Your task to perform on an android device: turn off priority inbox in the gmail app Image 0: 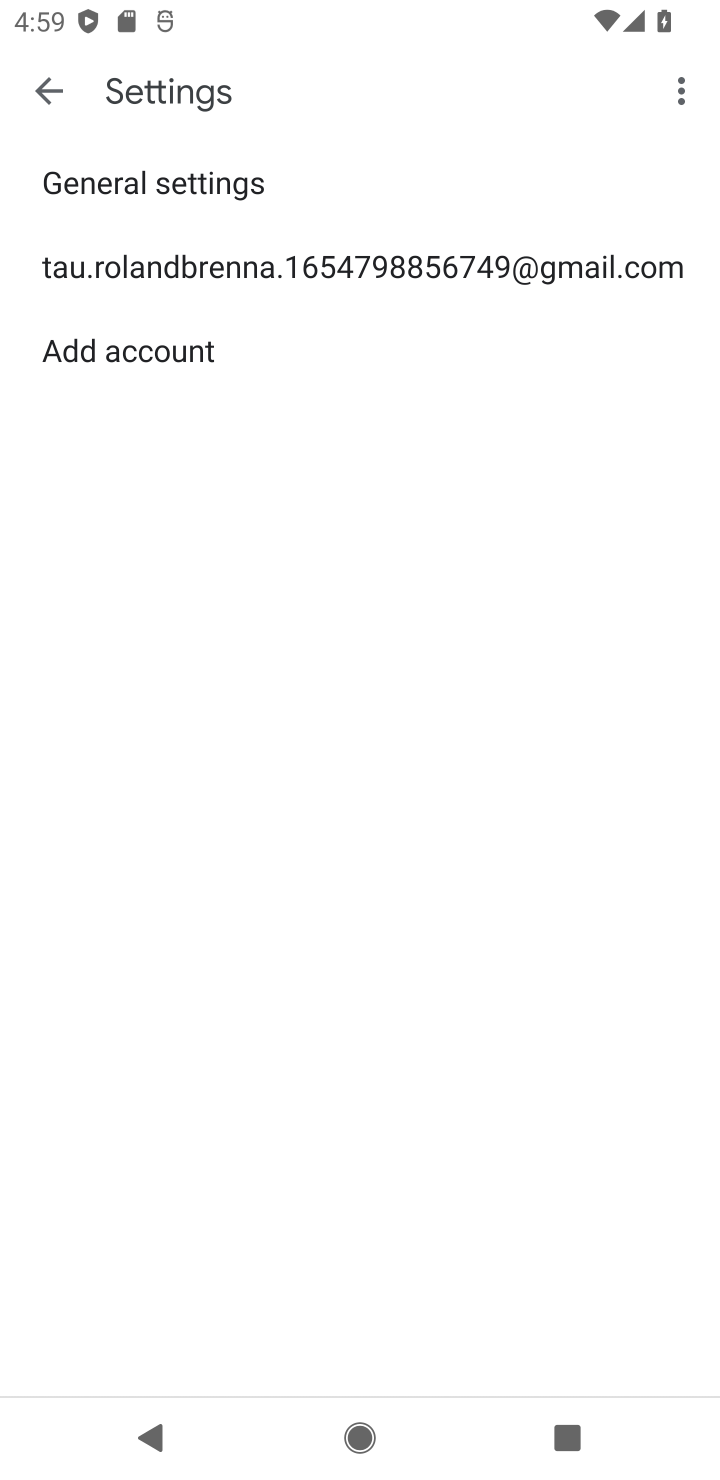
Step 0: press home button
Your task to perform on an android device: turn off priority inbox in the gmail app Image 1: 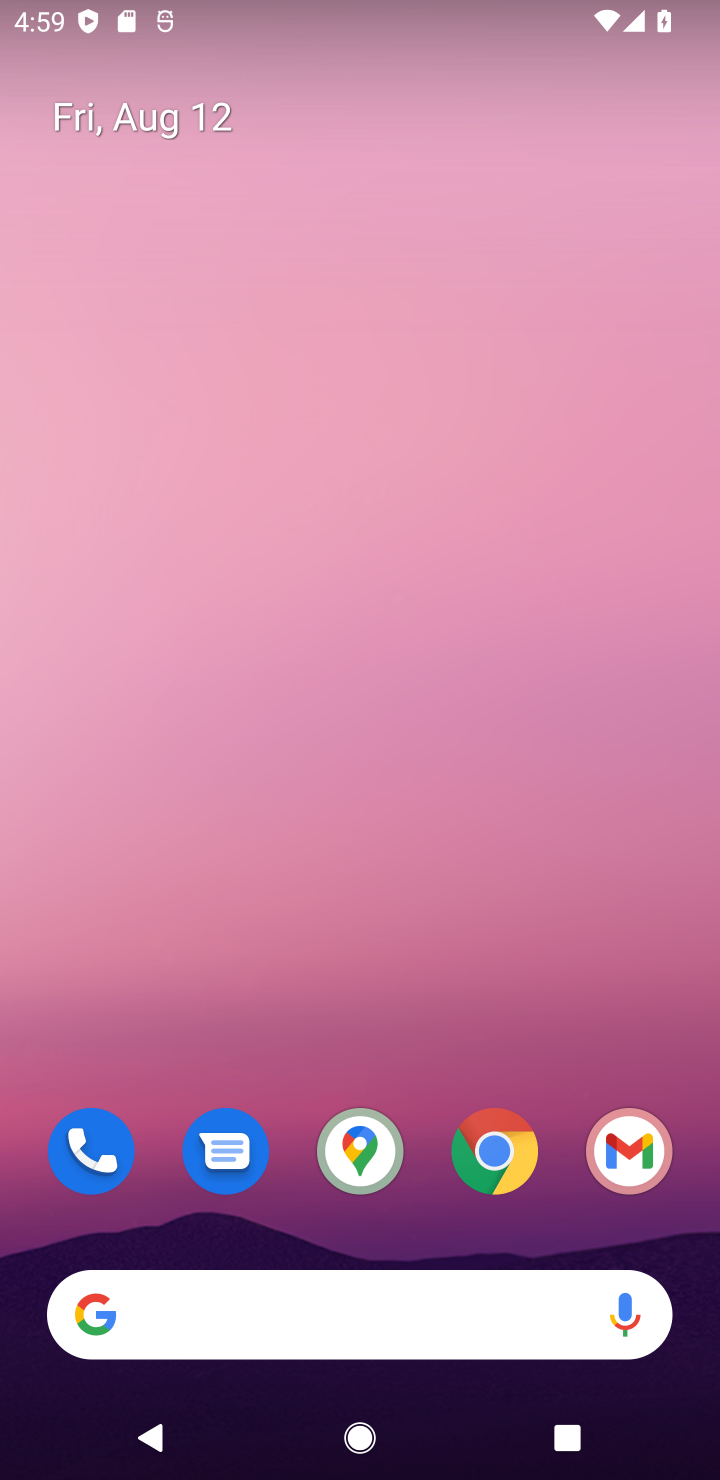
Step 1: drag from (424, 1076) to (673, 1022)
Your task to perform on an android device: turn off priority inbox in the gmail app Image 2: 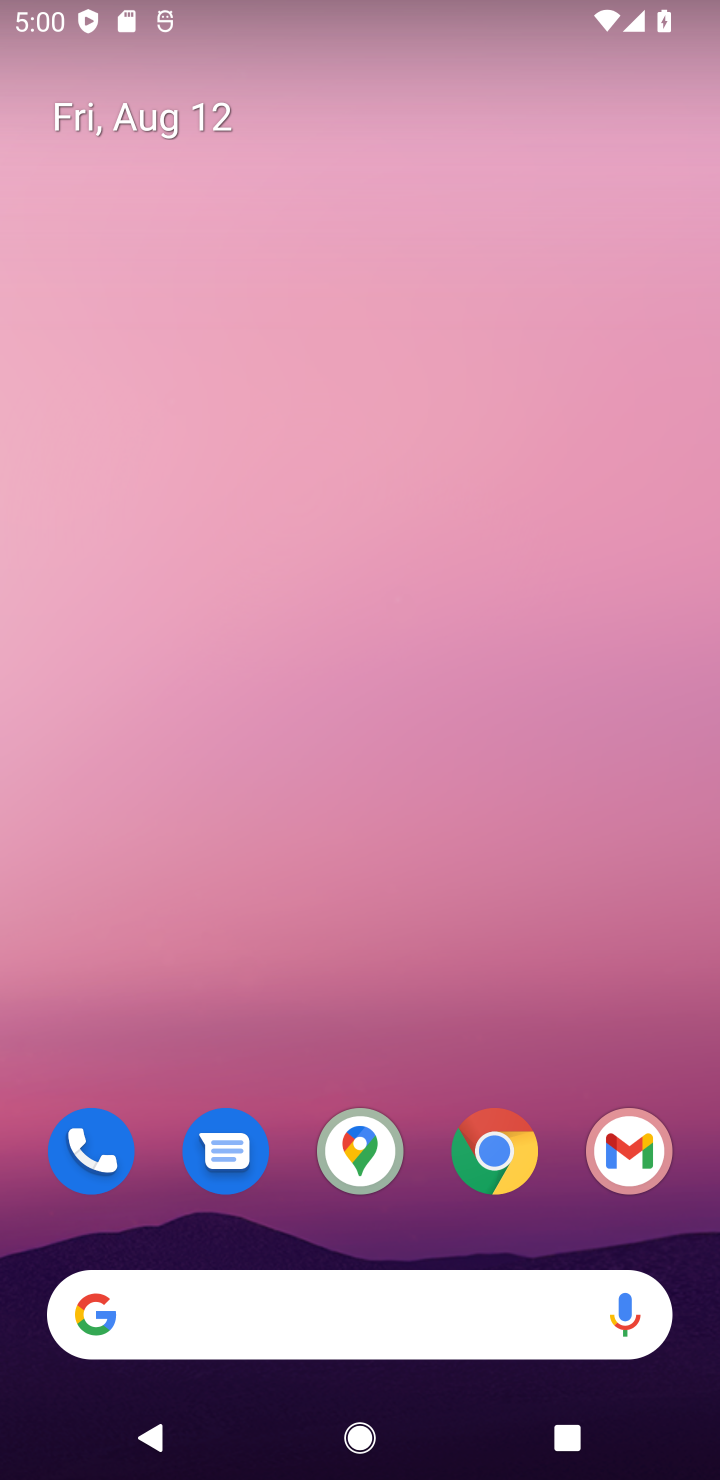
Step 2: drag from (538, 702) to (587, 111)
Your task to perform on an android device: turn off priority inbox in the gmail app Image 3: 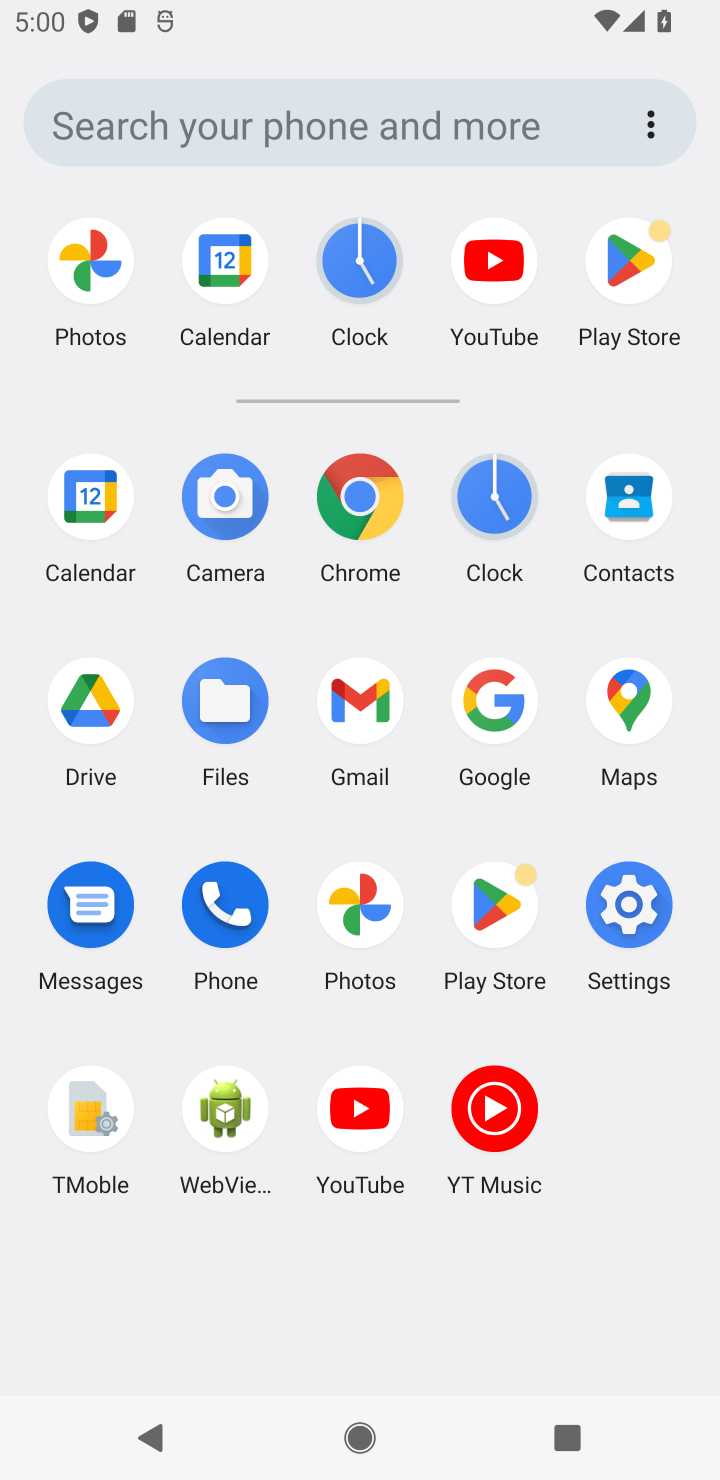
Step 3: click (384, 707)
Your task to perform on an android device: turn off priority inbox in the gmail app Image 4: 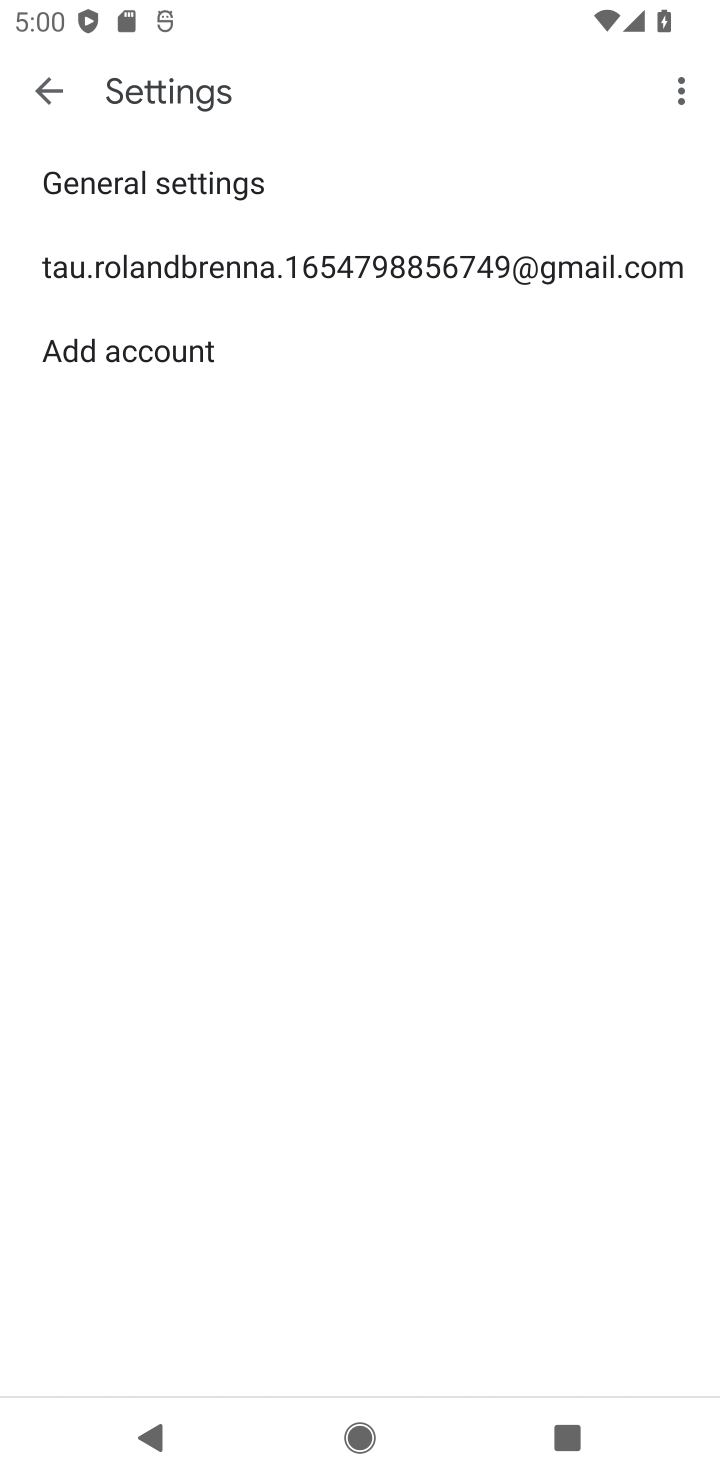
Step 4: click (362, 281)
Your task to perform on an android device: turn off priority inbox in the gmail app Image 5: 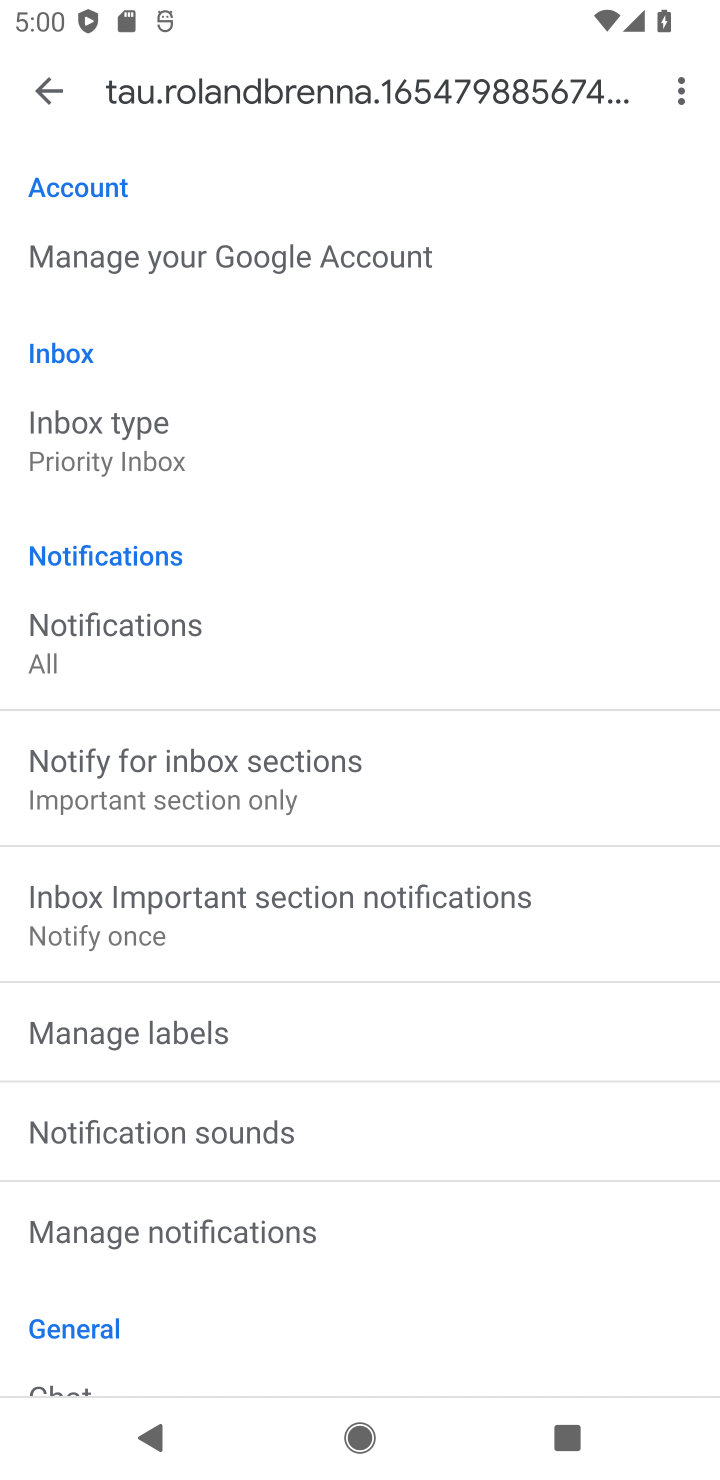
Step 5: click (146, 438)
Your task to perform on an android device: turn off priority inbox in the gmail app Image 6: 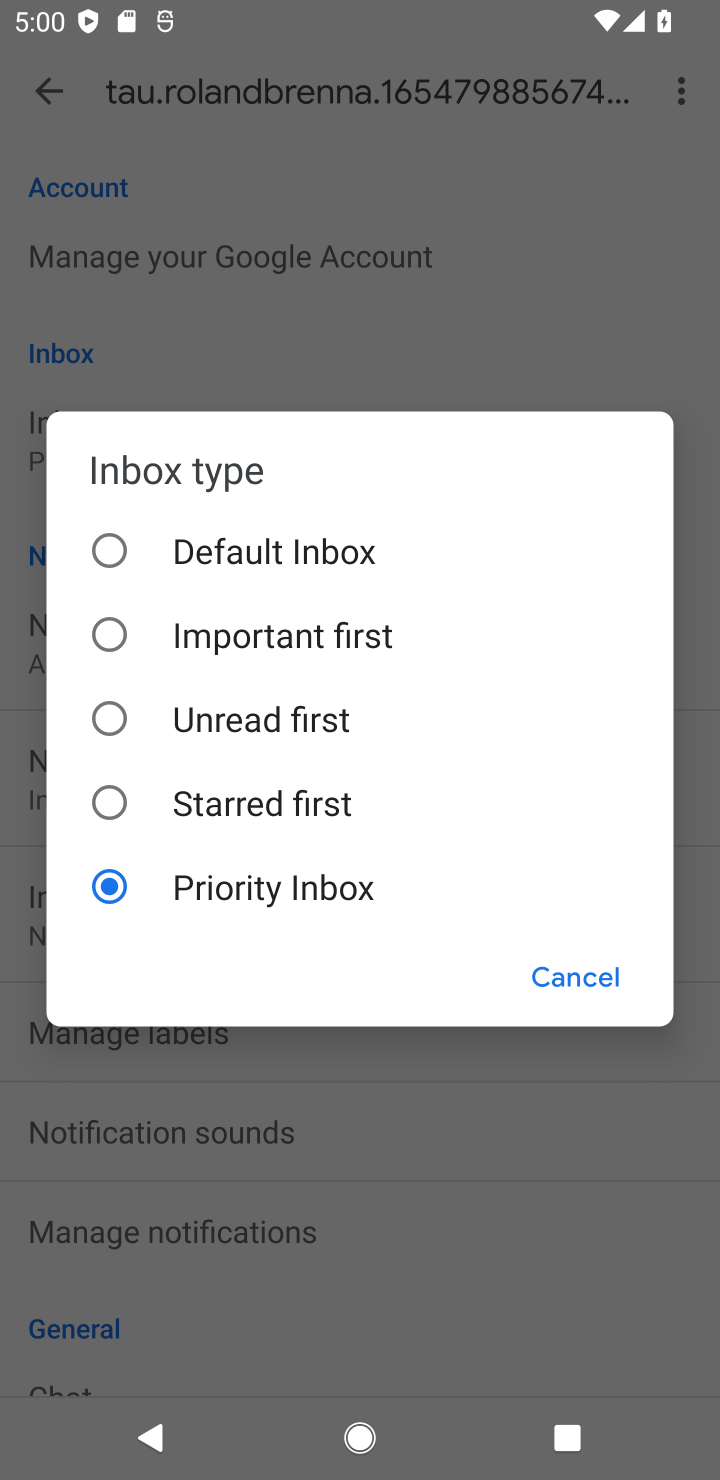
Step 6: task complete